Your task to perform on an android device: Search for seafood restaurants on Google Maps Image 0: 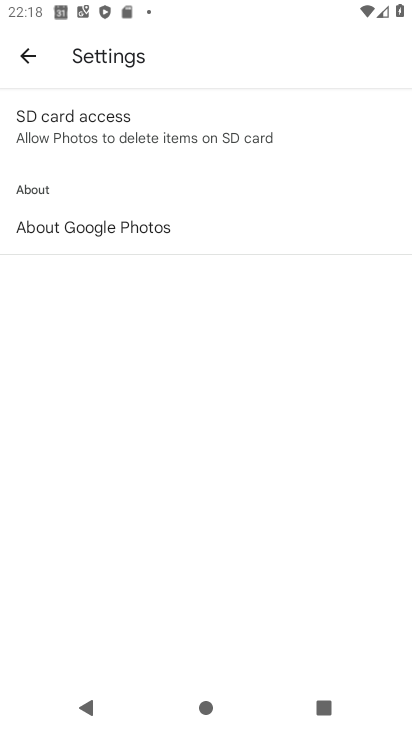
Step 0: press home button
Your task to perform on an android device: Search for seafood restaurants on Google Maps Image 1: 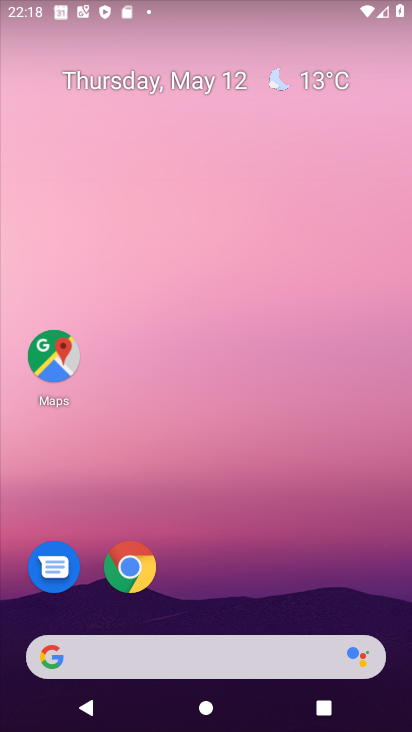
Step 1: drag from (219, 607) to (240, 141)
Your task to perform on an android device: Search for seafood restaurants on Google Maps Image 2: 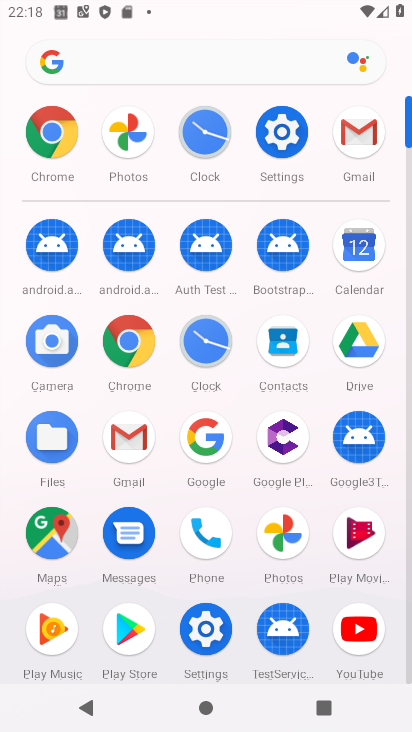
Step 2: click (50, 526)
Your task to perform on an android device: Search for seafood restaurants on Google Maps Image 3: 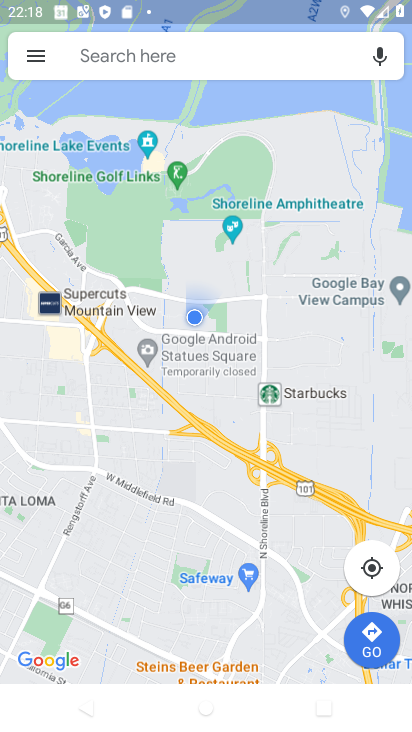
Step 3: click (146, 47)
Your task to perform on an android device: Search for seafood restaurants on Google Maps Image 4: 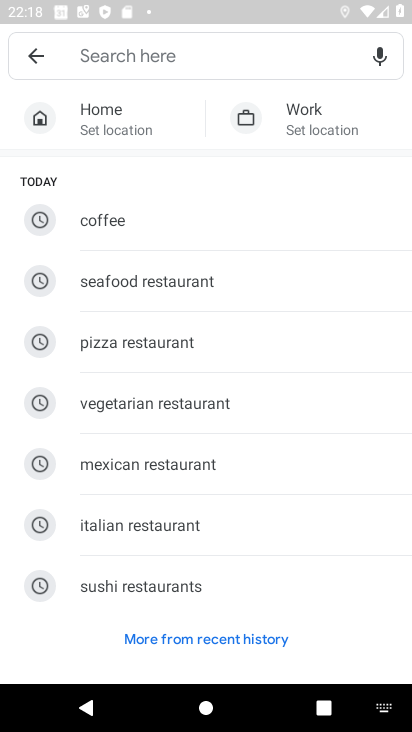
Step 4: click (161, 285)
Your task to perform on an android device: Search for seafood restaurants on Google Maps Image 5: 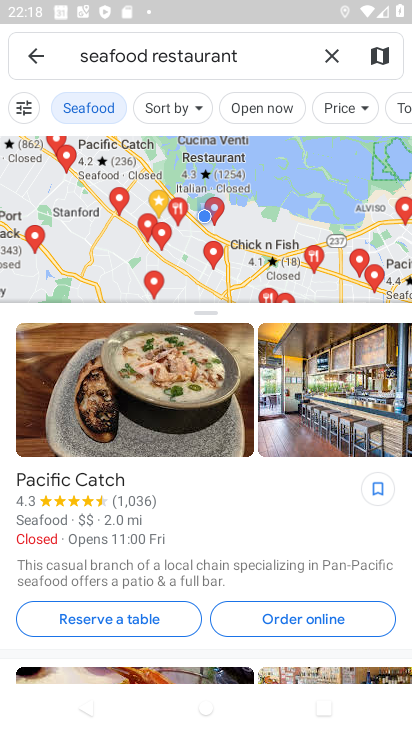
Step 5: task complete